Your task to perform on an android device: open the mobile data screen to see how much data has been used Image 0: 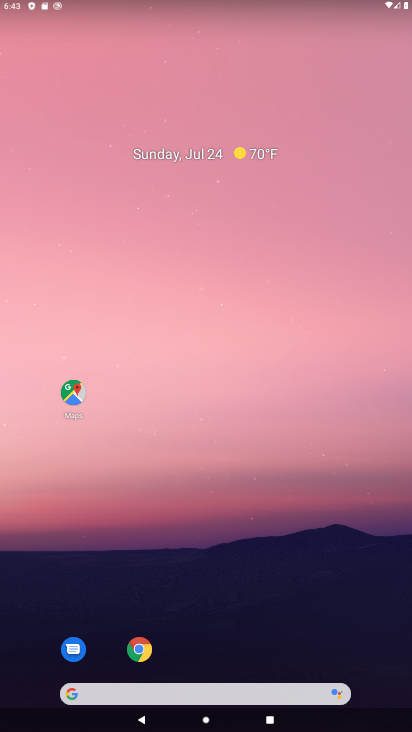
Step 0: drag from (229, 630) to (174, 121)
Your task to perform on an android device: open the mobile data screen to see how much data has been used Image 1: 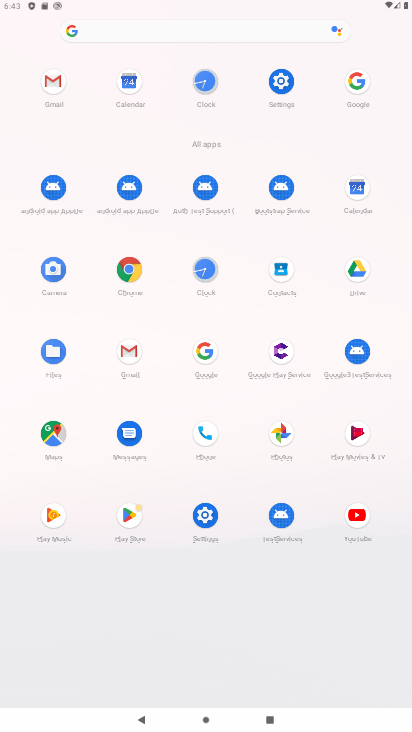
Step 1: click (274, 80)
Your task to perform on an android device: open the mobile data screen to see how much data has been used Image 2: 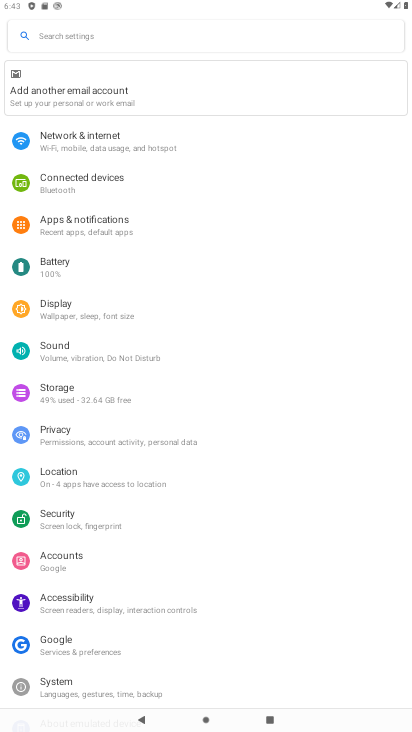
Step 2: click (78, 135)
Your task to perform on an android device: open the mobile data screen to see how much data has been used Image 3: 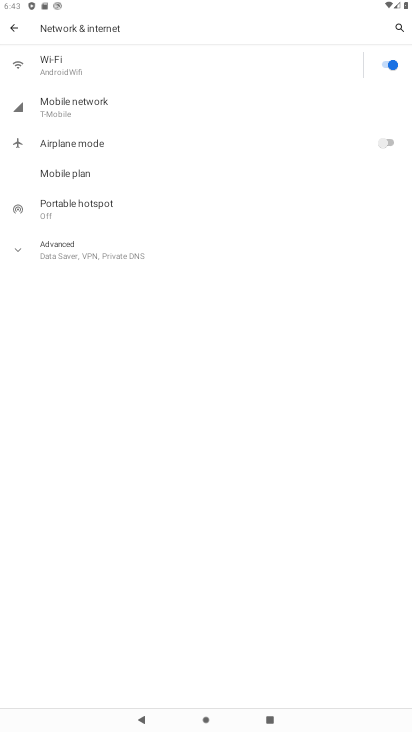
Step 3: click (76, 97)
Your task to perform on an android device: open the mobile data screen to see how much data has been used Image 4: 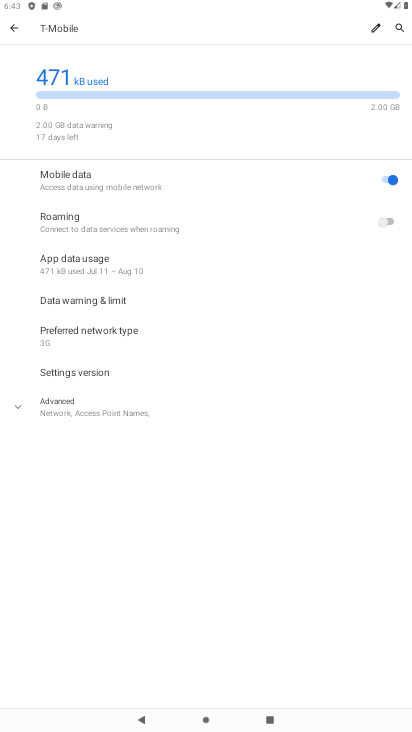
Step 4: task complete